Your task to perform on an android device: open chrome privacy settings Image 0: 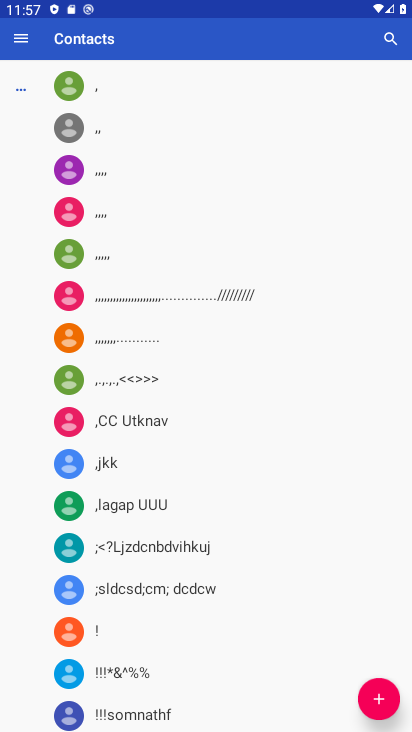
Step 0: press home button
Your task to perform on an android device: open chrome privacy settings Image 1: 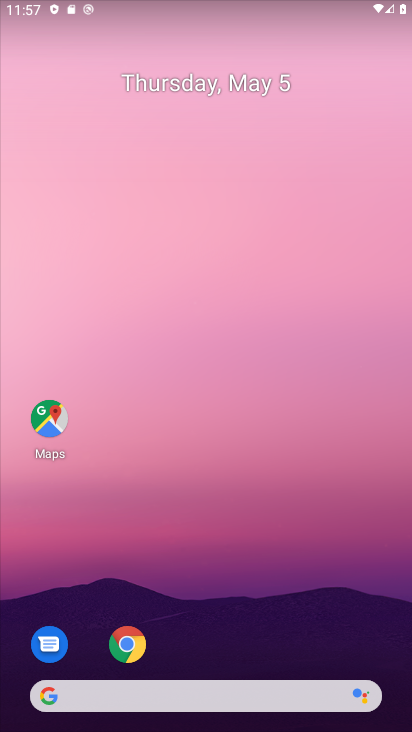
Step 1: click (145, 646)
Your task to perform on an android device: open chrome privacy settings Image 2: 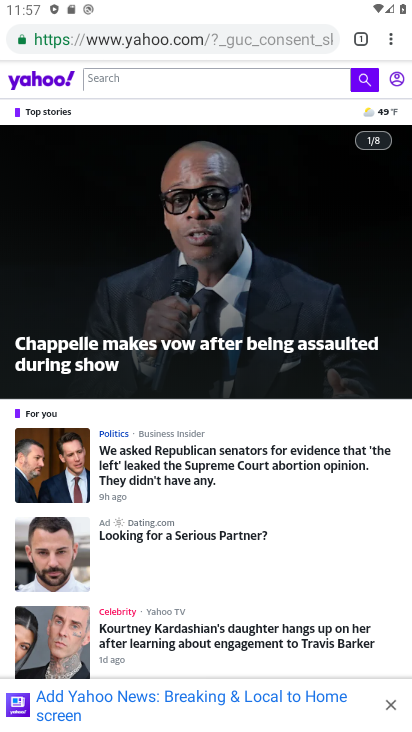
Step 2: click (393, 40)
Your task to perform on an android device: open chrome privacy settings Image 3: 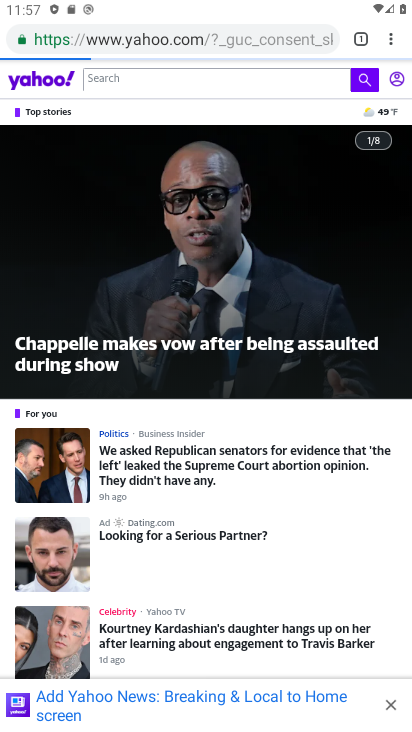
Step 3: click (393, 40)
Your task to perform on an android device: open chrome privacy settings Image 4: 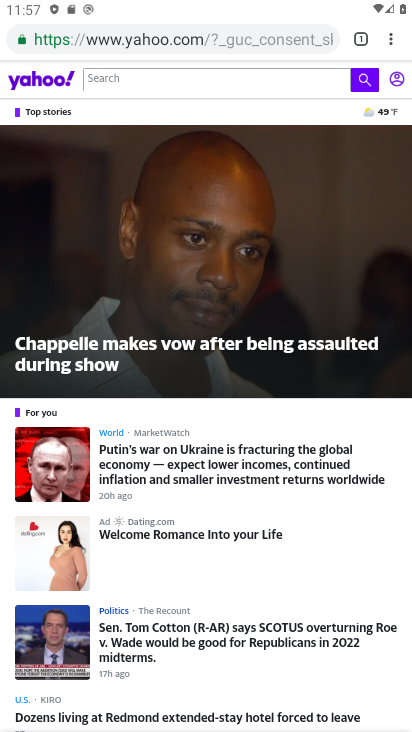
Step 4: click (388, 39)
Your task to perform on an android device: open chrome privacy settings Image 5: 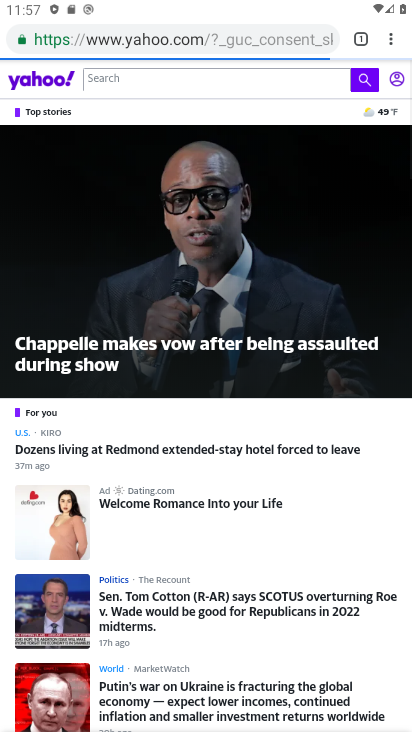
Step 5: click (388, 39)
Your task to perform on an android device: open chrome privacy settings Image 6: 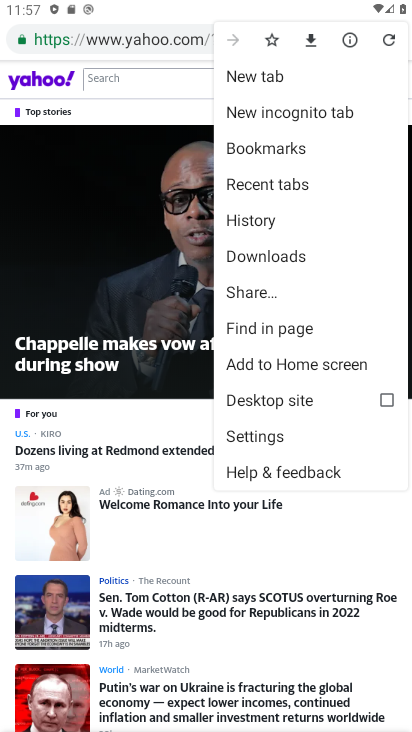
Step 6: click (252, 435)
Your task to perform on an android device: open chrome privacy settings Image 7: 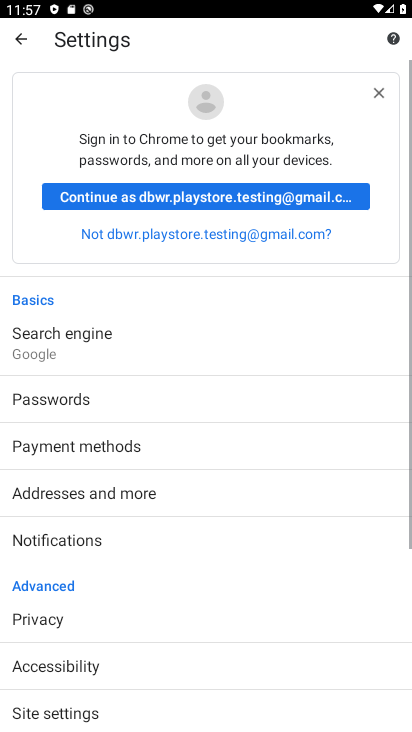
Step 7: click (82, 615)
Your task to perform on an android device: open chrome privacy settings Image 8: 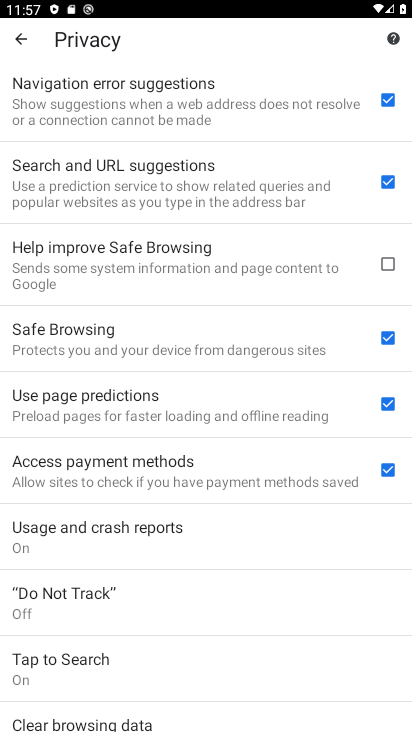
Step 8: task complete